Your task to perform on an android device: Do I have any events today? Image 0: 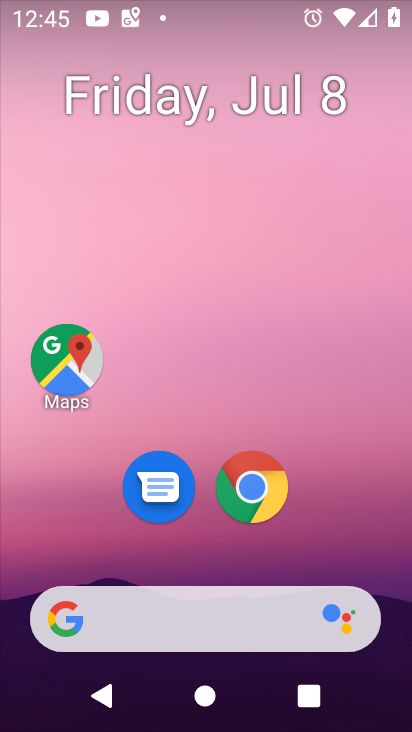
Step 0: drag from (357, 556) to (374, 128)
Your task to perform on an android device: Do I have any events today? Image 1: 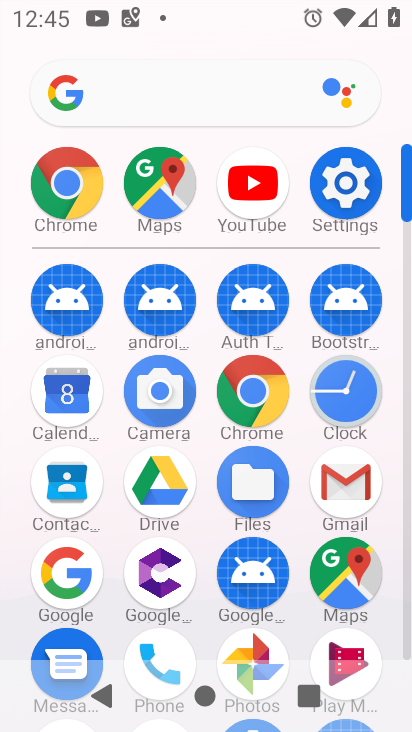
Step 1: click (72, 404)
Your task to perform on an android device: Do I have any events today? Image 2: 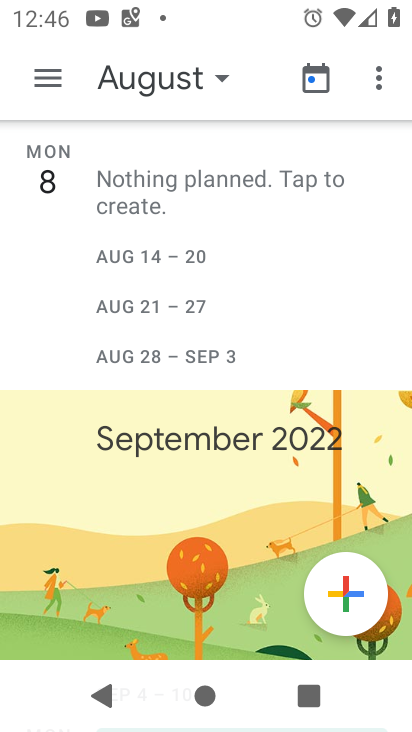
Step 2: task complete